Your task to perform on an android device: set an alarm Image 0: 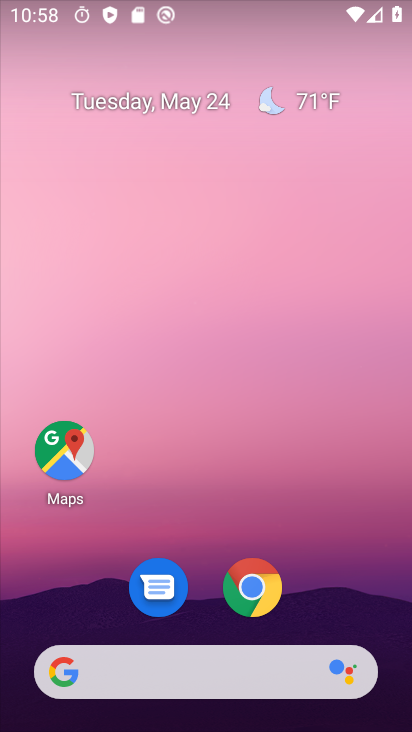
Step 0: drag from (329, 699) to (167, 153)
Your task to perform on an android device: set an alarm Image 1: 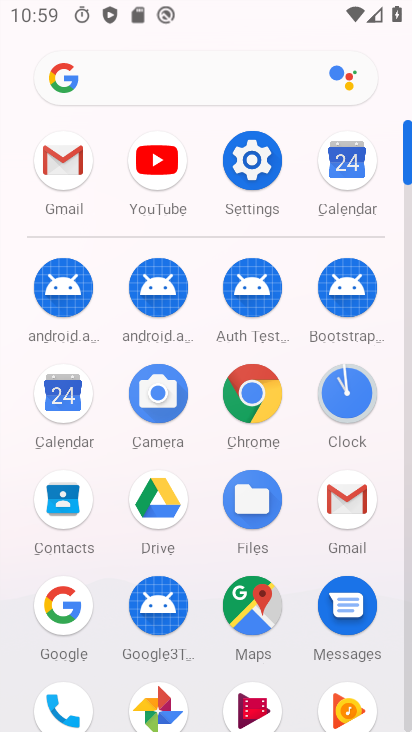
Step 1: click (344, 388)
Your task to perform on an android device: set an alarm Image 2: 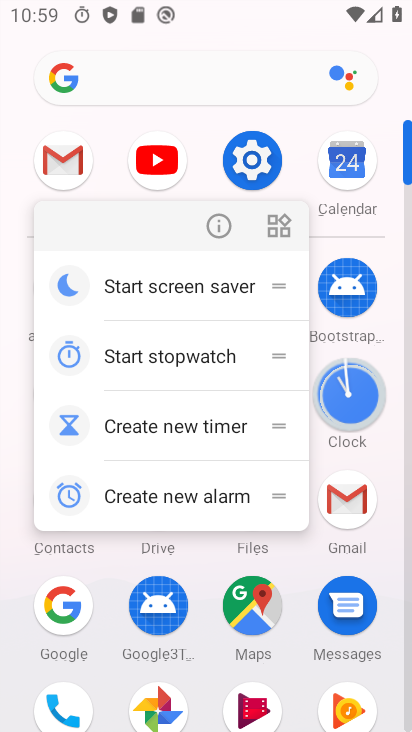
Step 2: click (346, 389)
Your task to perform on an android device: set an alarm Image 3: 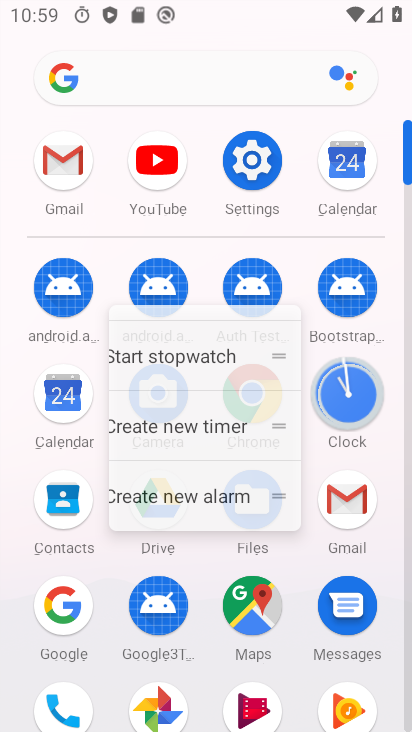
Step 3: click (346, 389)
Your task to perform on an android device: set an alarm Image 4: 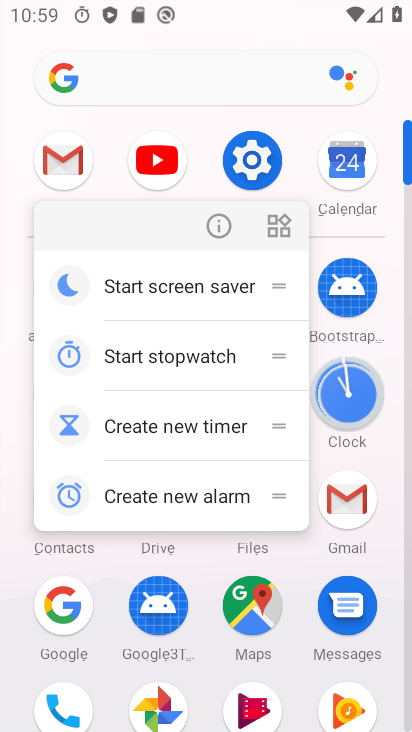
Step 4: click (345, 388)
Your task to perform on an android device: set an alarm Image 5: 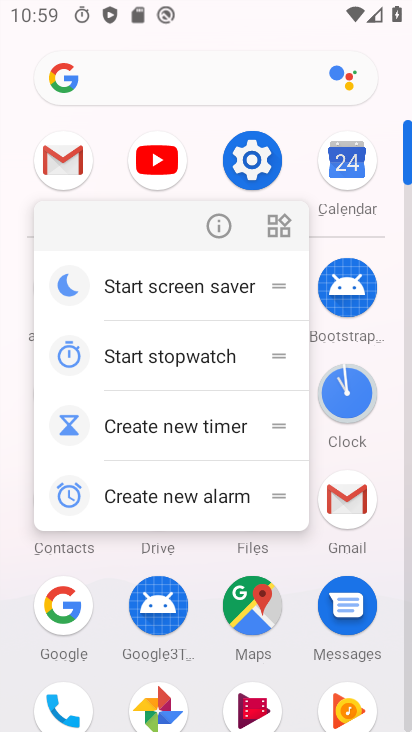
Step 5: click (342, 388)
Your task to perform on an android device: set an alarm Image 6: 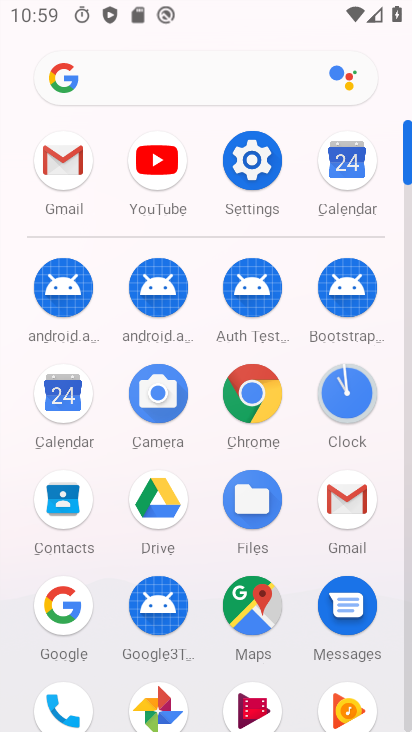
Step 6: click (342, 388)
Your task to perform on an android device: set an alarm Image 7: 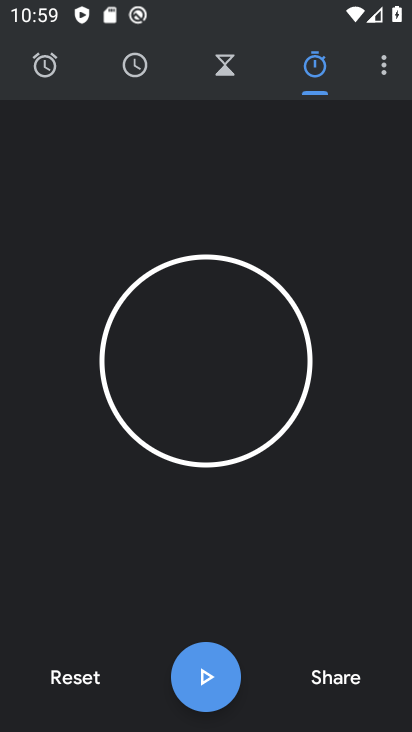
Step 7: click (47, 66)
Your task to perform on an android device: set an alarm Image 8: 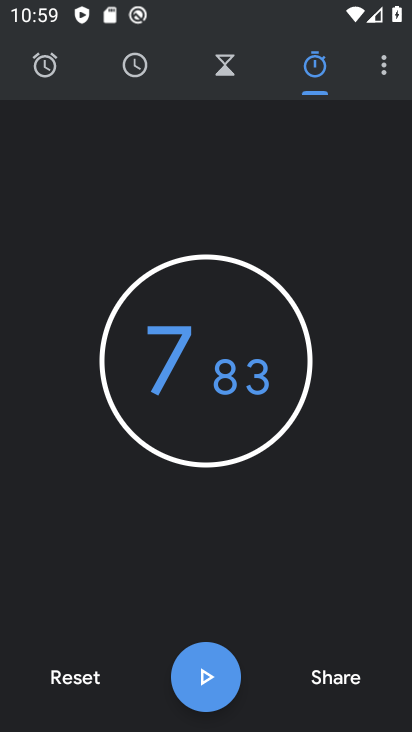
Step 8: click (46, 68)
Your task to perform on an android device: set an alarm Image 9: 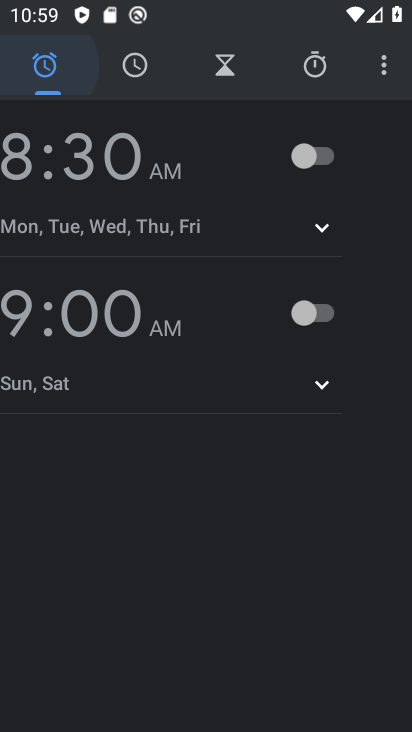
Step 9: click (46, 68)
Your task to perform on an android device: set an alarm Image 10: 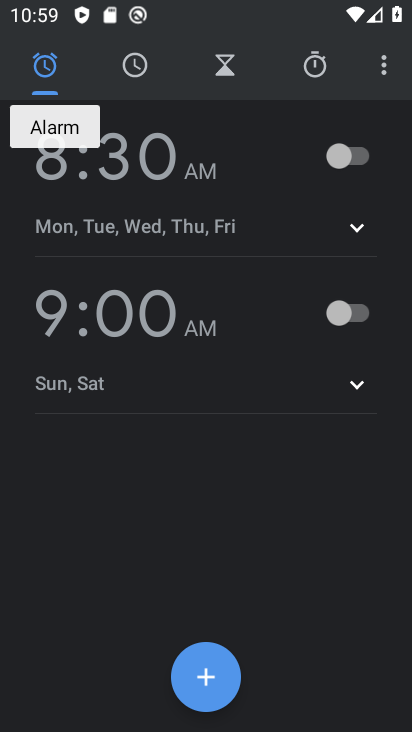
Step 10: click (340, 154)
Your task to perform on an android device: set an alarm Image 11: 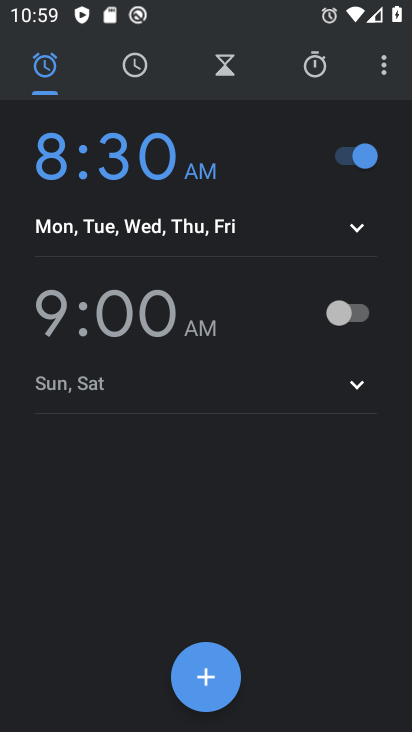
Step 11: task complete